Your task to perform on an android device: stop showing notifications on the lock screen Image 0: 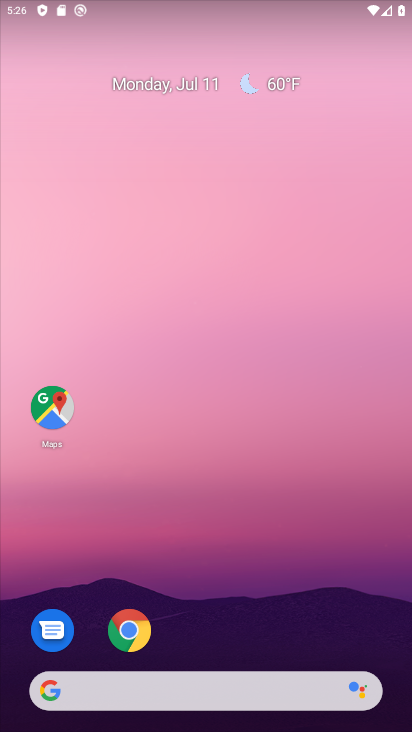
Step 0: drag from (173, 558) to (152, 175)
Your task to perform on an android device: stop showing notifications on the lock screen Image 1: 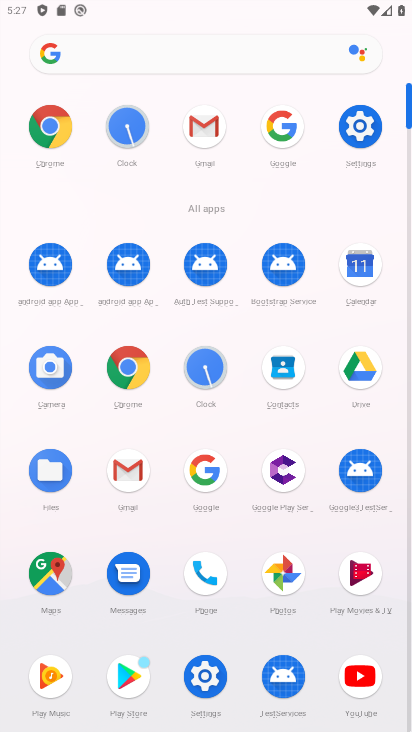
Step 1: click (363, 127)
Your task to perform on an android device: stop showing notifications on the lock screen Image 2: 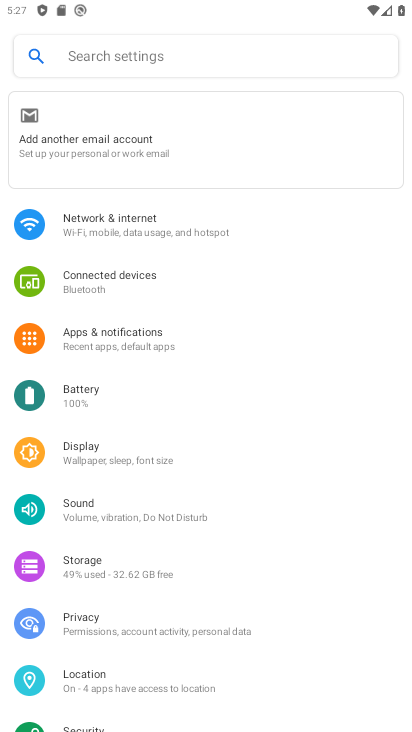
Step 2: click (91, 332)
Your task to perform on an android device: stop showing notifications on the lock screen Image 3: 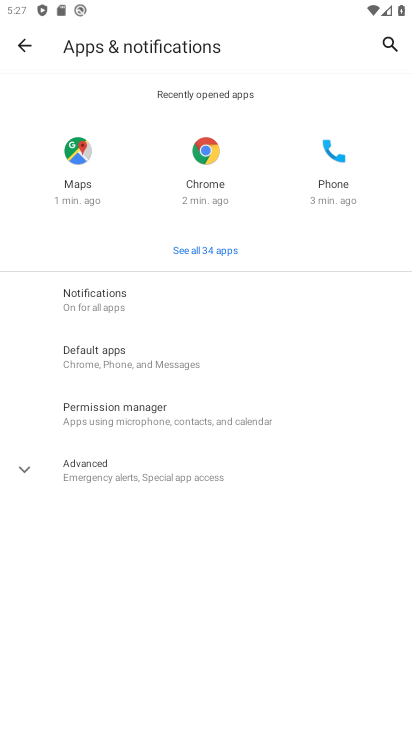
Step 3: click (91, 303)
Your task to perform on an android device: stop showing notifications on the lock screen Image 4: 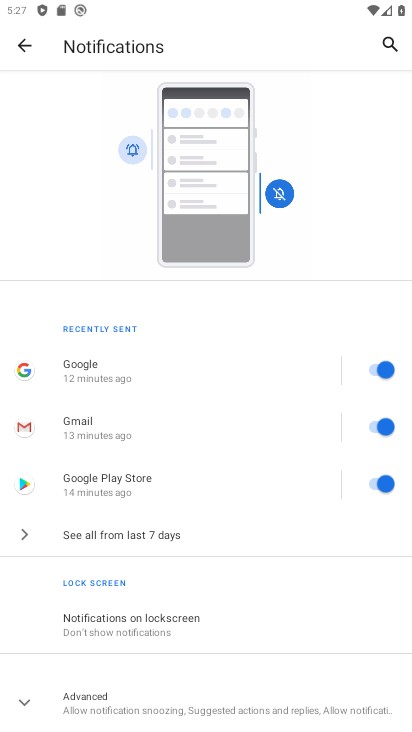
Step 4: click (150, 628)
Your task to perform on an android device: stop showing notifications on the lock screen Image 5: 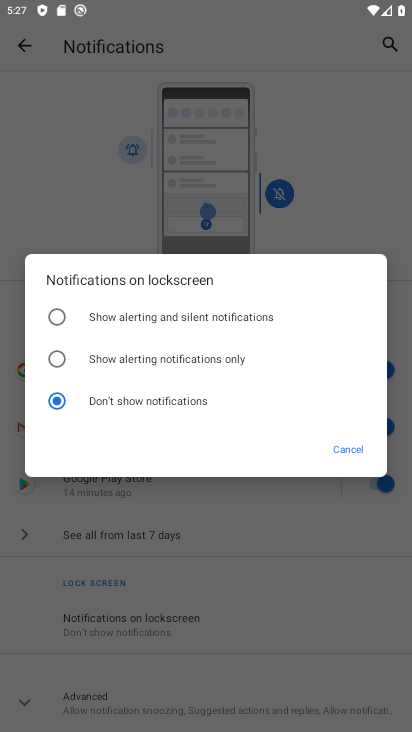
Step 5: click (52, 319)
Your task to perform on an android device: stop showing notifications on the lock screen Image 6: 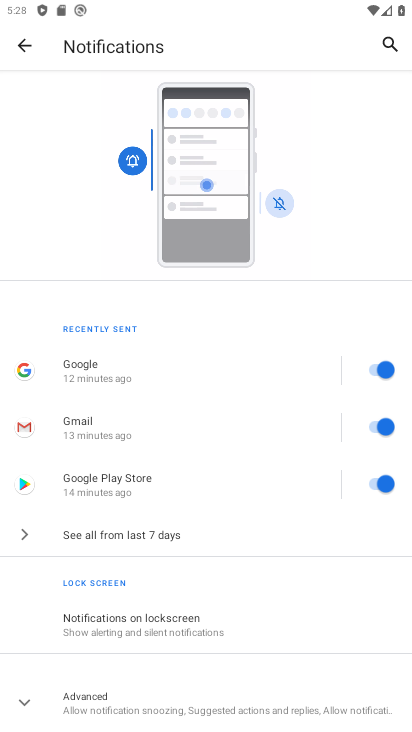
Step 6: click (173, 634)
Your task to perform on an android device: stop showing notifications on the lock screen Image 7: 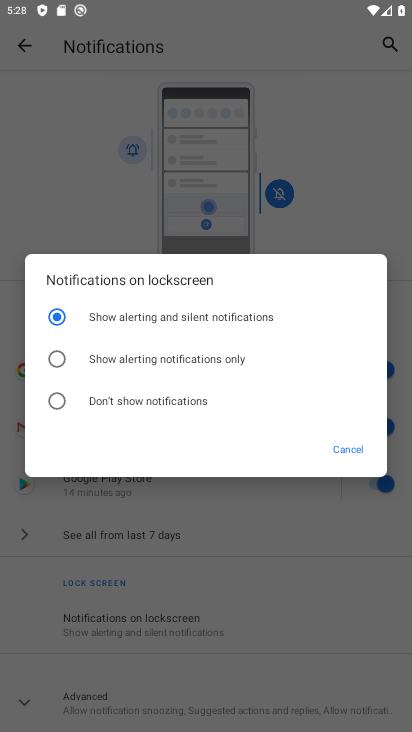
Step 7: click (58, 403)
Your task to perform on an android device: stop showing notifications on the lock screen Image 8: 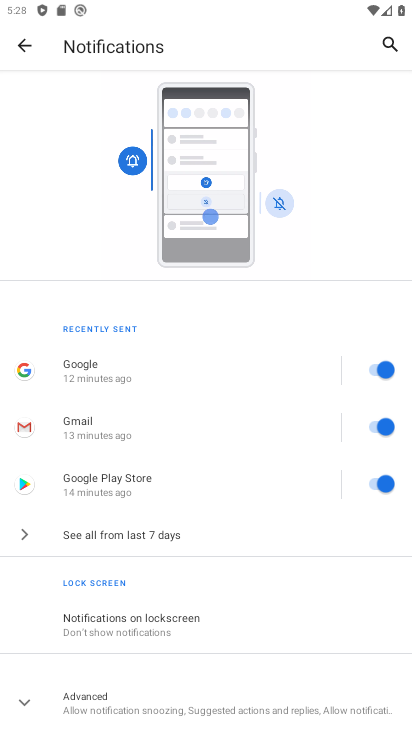
Step 8: task complete